Your task to perform on an android device: open sync settings in chrome Image 0: 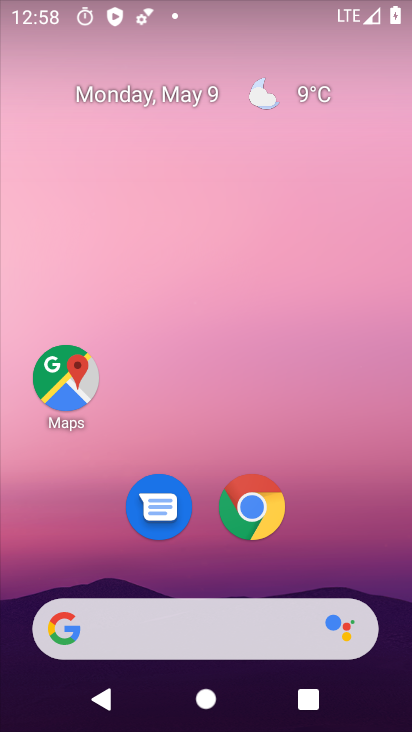
Step 0: click (243, 510)
Your task to perform on an android device: open sync settings in chrome Image 1: 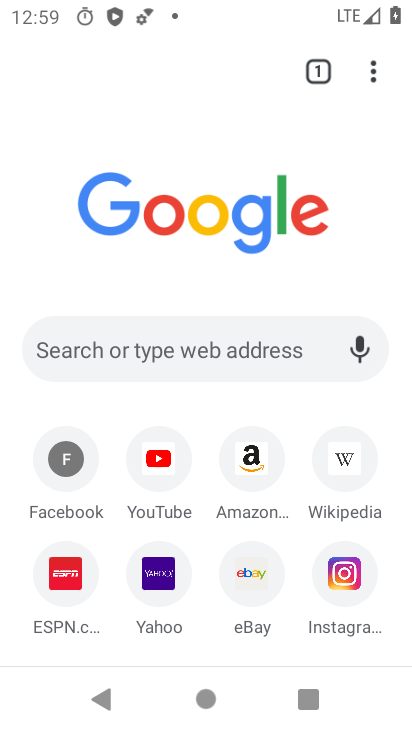
Step 1: click (375, 79)
Your task to perform on an android device: open sync settings in chrome Image 2: 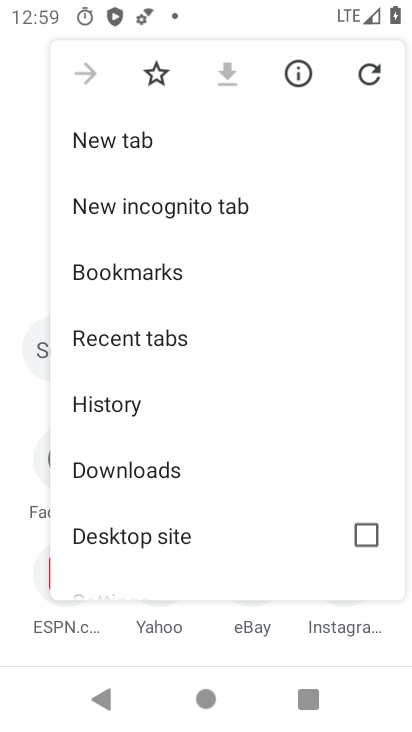
Step 2: drag from (178, 561) to (172, 226)
Your task to perform on an android device: open sync settings in chrome Image 3: 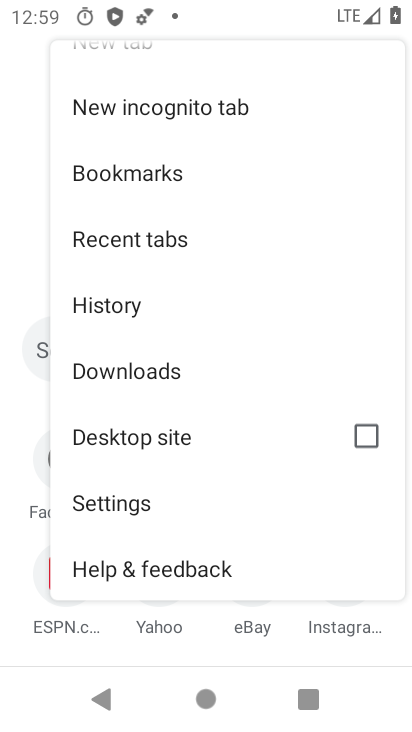
Step 3: click (131, 505)
Your task to perform on an android device: open sync settings in chrome Image 4: 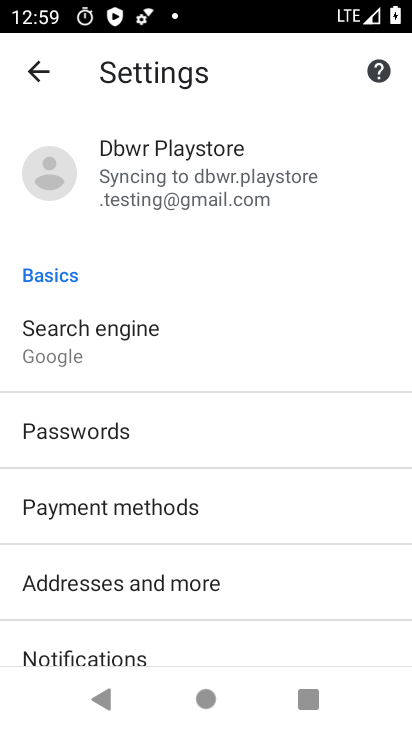
Step 4: drag from (167, 649) to (162, 297)
Your task to perform on an android device: open sync settings in chrome Image 5: 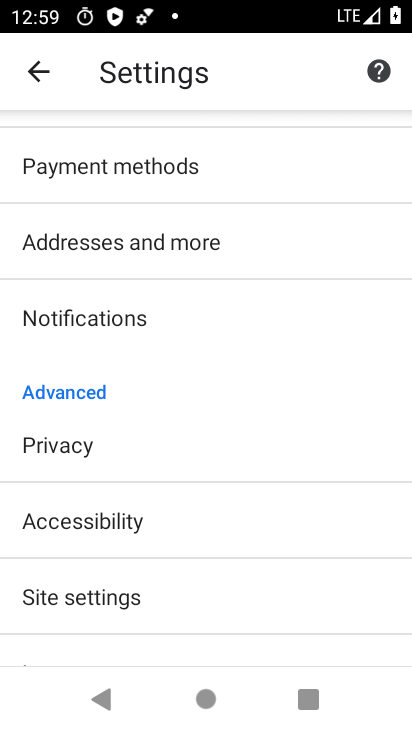
Step 5: drag from (131, 587) to (140, 386)
Your task to perform on an android device: open sync settings in chrome Image 6: 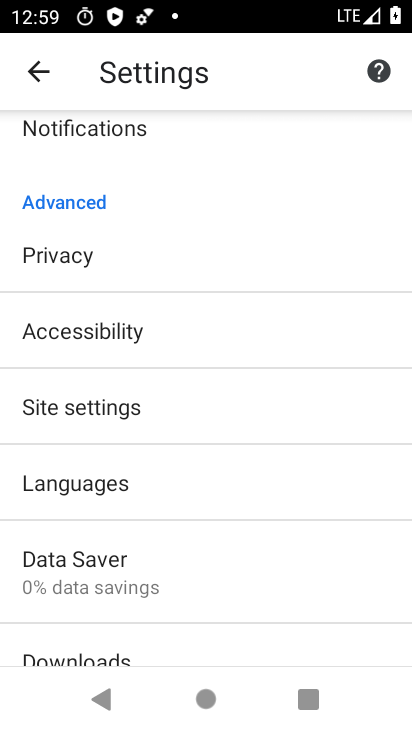
Step 6: click (100, 404)
Your task to perform on an android device: open sync settings in chrome Image 7: 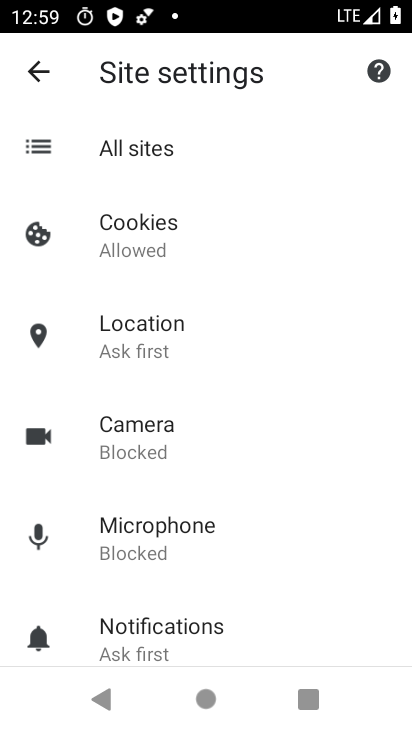
Step 7: drag from (141, 597) to (142, 343)
Your task to perform on an android device: open sync settings in chrome Image 8: 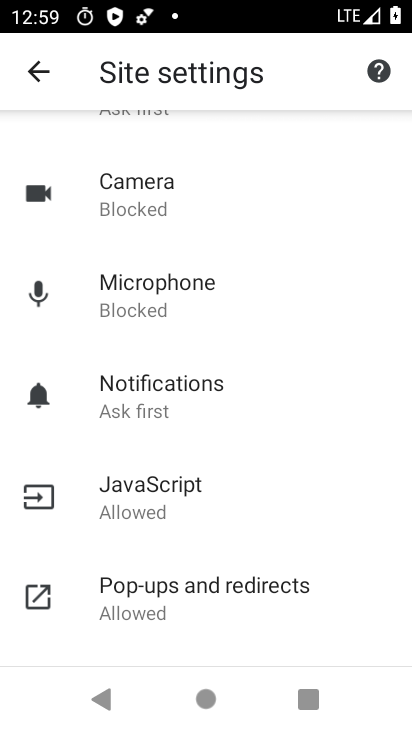
Step 8: drag from (181, 633) to (216, 659)
Your task to perform on an android device: open sync settings in chrome Image 9: 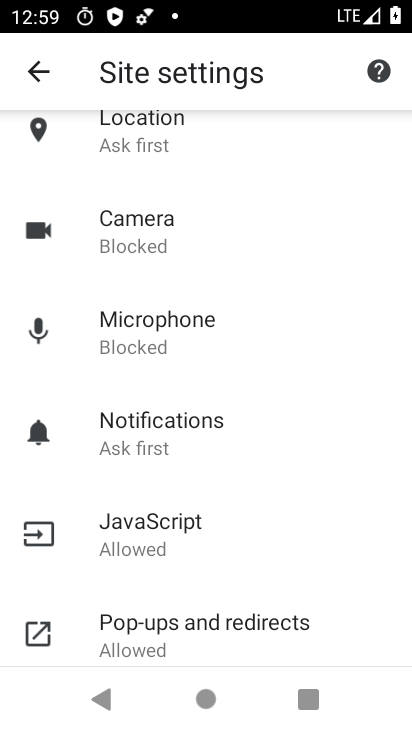
Step 9: click (238, 215)
Your task to perform on an android device: open sync settings in chrome Image 10: 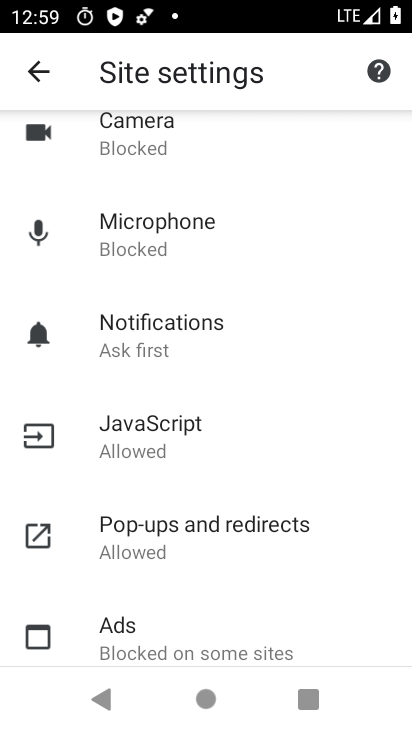
Step 10: drag from (214, 622) to (212, 336)
Your task to perform on an android device: open sync settings in chrome Image 11: 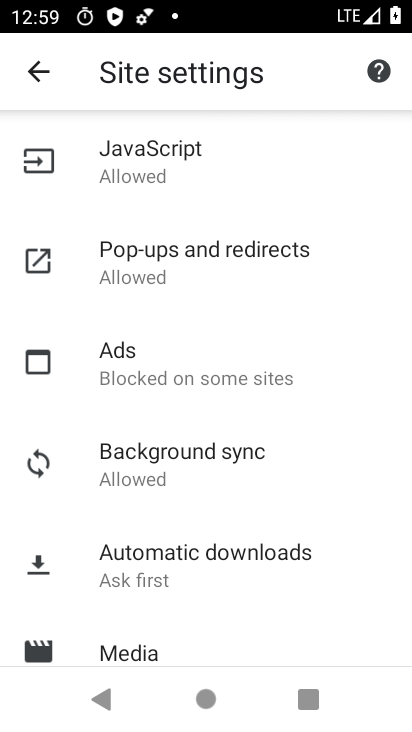
Step 11: click (168, 467)
Your task to perform on an android device: open sync settings in chrome Image 12: 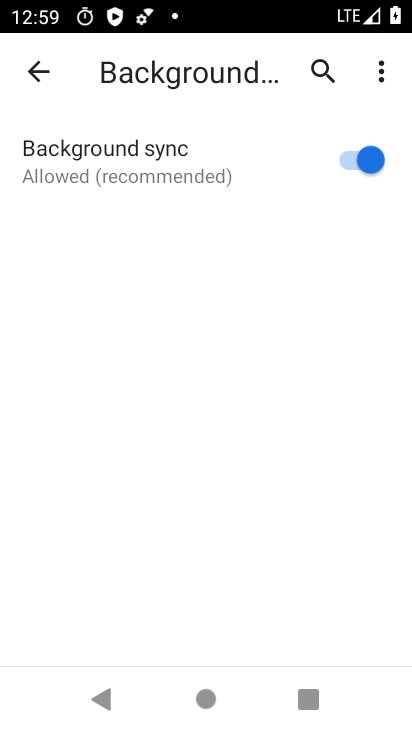
Step 12: task complete